Your task to perform on an android device: Open sound settings Image 0: 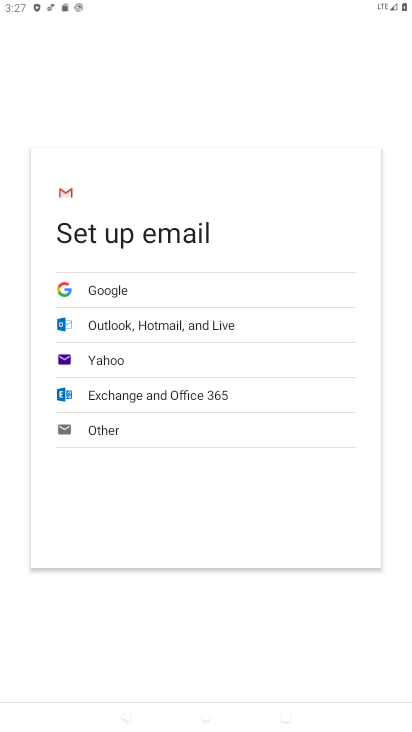
Step 0: press home button
Your task to perform on an android device: Open sound settings Image 1: 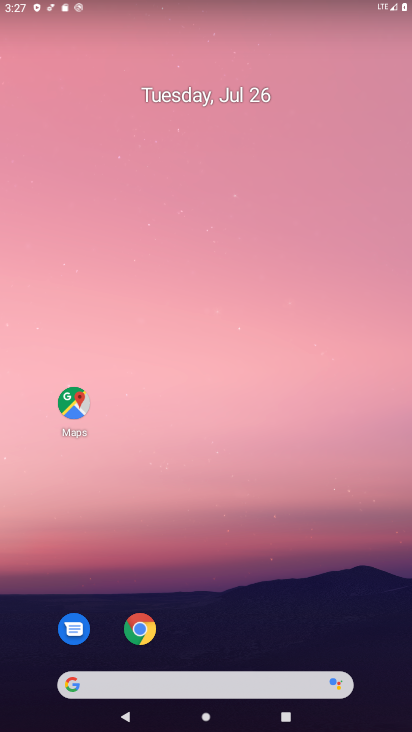
Step 1: drag from (229, 717) to (230, 108)
Your task to perform on an android device: Open sound settings Image 2: 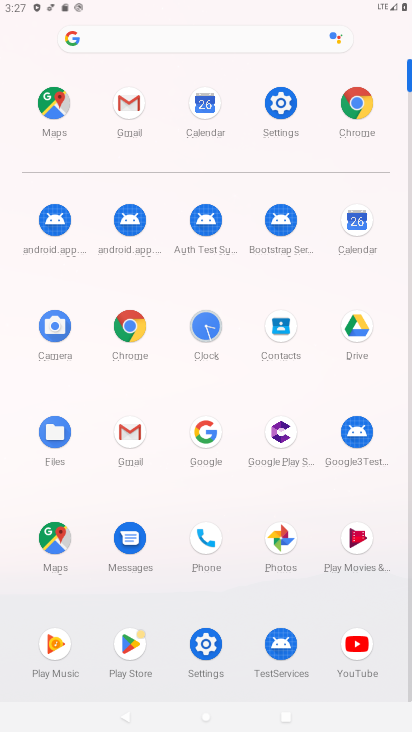
Step 2: click (284, 101)
Your task to perform on an android device: Open sound settings Image 3: 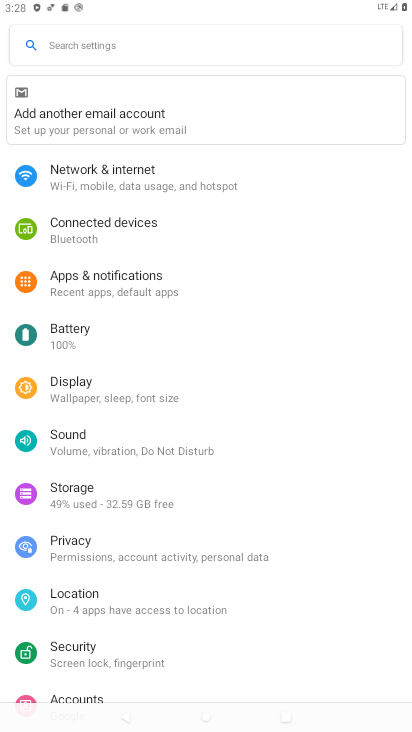
Step 3: click (66, 437)
Your task to perform on an android device: Open sound settings Image 4: 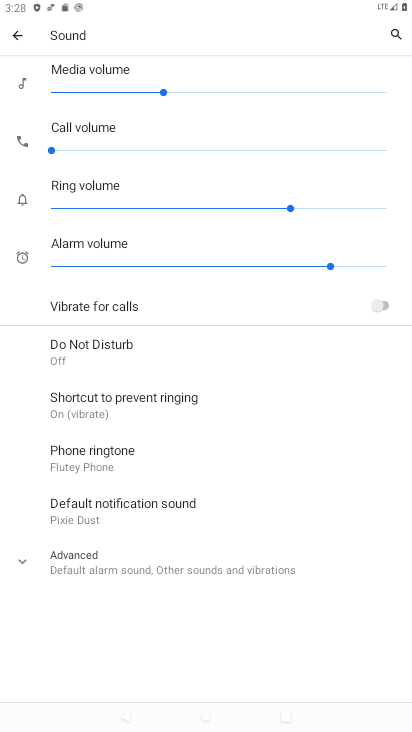
Step 4: task complete